Your task to perform on an android device: open app "File Manager" Image 0: 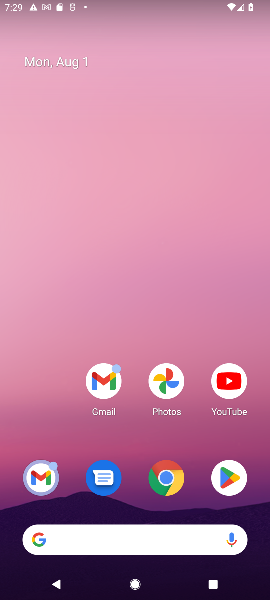
Step 0: press home button
Your task to perform on an android device: open app "File Manager" Image 1: 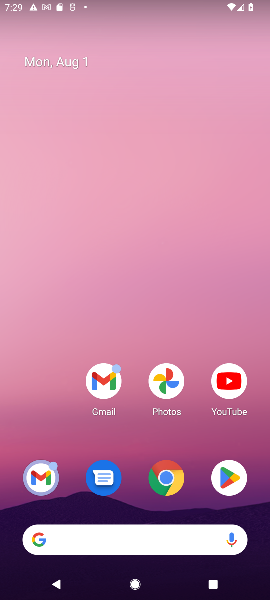
Step 1: click (228, 483)
Your task to perform on an android device: open app "File Manager" Image 2: 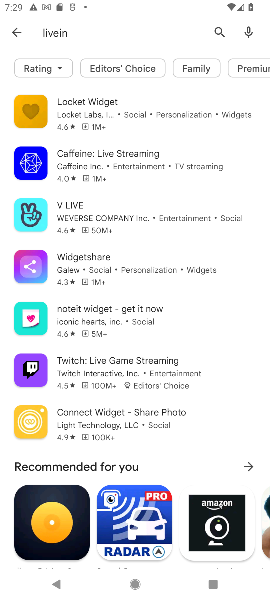
Step 2: click (212, 33)
Your task to perform on an android device: open app "File Manager" Image 3: 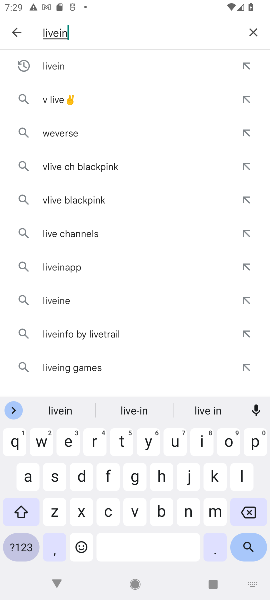
Step 3: click (250, 30)
Your task to perform on an android device: open app "File Manager" Image 4: 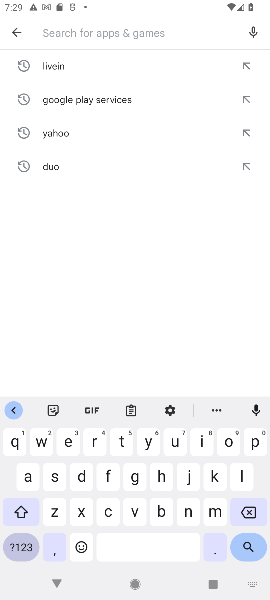
Step 4: click (108, 479)
Your task to perform on an android device: open app "File Manager" Image 5: 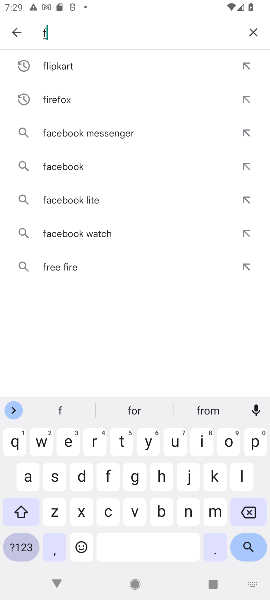
Step 5: click (198, 440)
Your task to perform on an android device: open app "File Manager" Image 6: 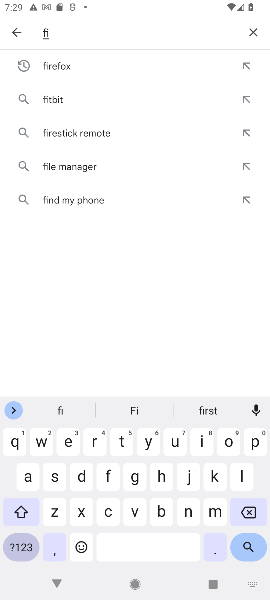
Step 6: click (79, 162)
Your task to perform on an android device: open app "File Manager" Image 7: 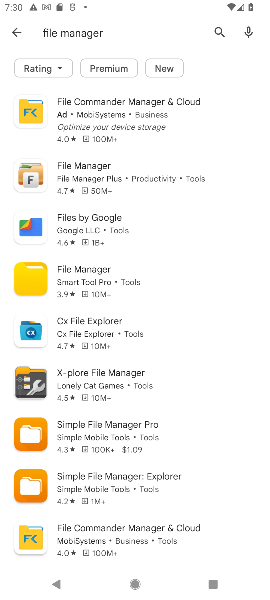
Step 7: click (90, 122)
Your task to perform on an android device: open app "File Manager" Image 8: 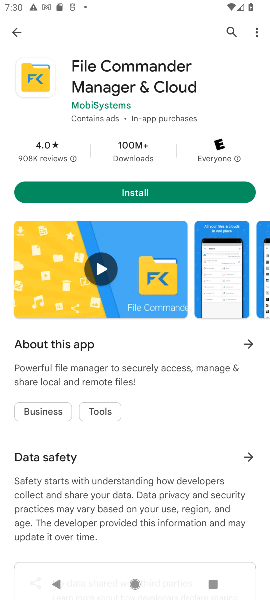
Step 8: click (104, 193)
Your task to perform on an android device: open app "File Manager" Image 9: 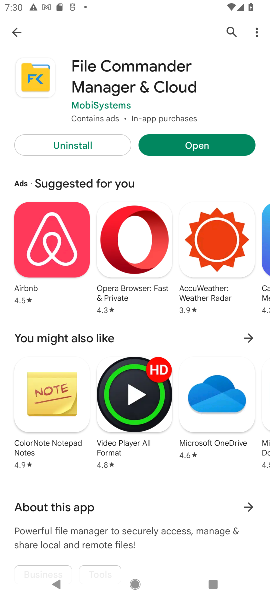
Step 9: click (175, 145)
Your task to perform on an android device: open app "File Manager" Image 10: 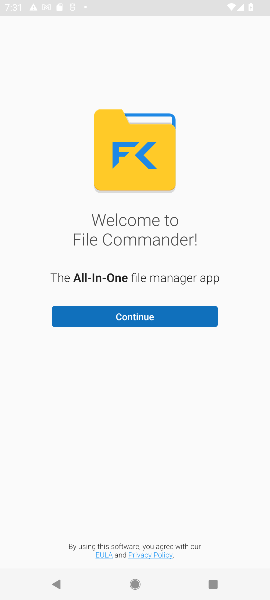
Step 10: click (123, 314)
Your task to perform on an android device: open app "File Manager" Image 11: 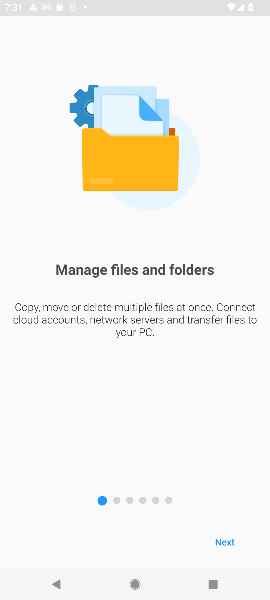
Step 11: click (234, 538)
Your task to perform on an android device: open app "File Manager" Image 12: 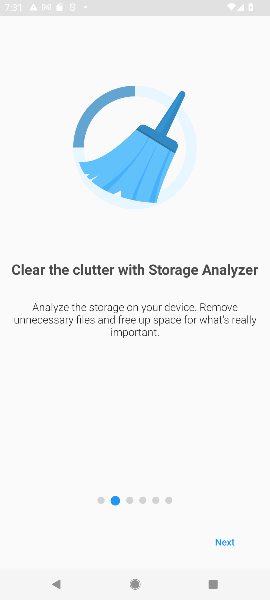
Step 12: click (232, 541)
Your task to perform on an android device: open app "File Manager" Image 13: 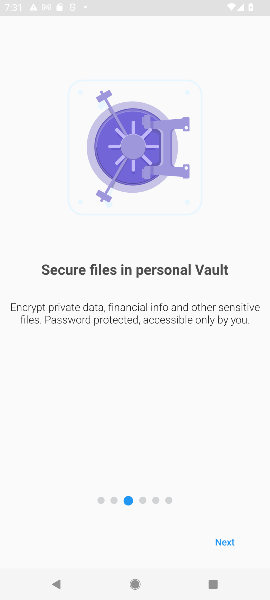
Step 13: click (231, 541)
Your task to perform on an android device: open app "File Manager" Image 14: 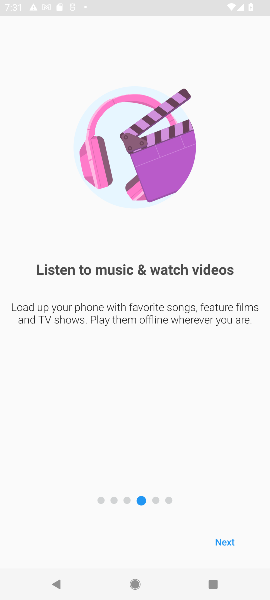
Step 14: click (230, 540)
Your task to perform on an android device: open app "File Manager" Image 15: 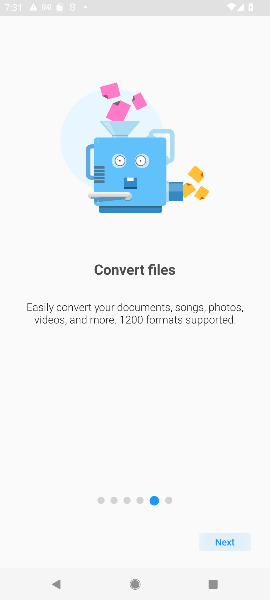
Step 15: click (230, 540)
Your task to perform on an android device: open app "File Manager" Image 16: 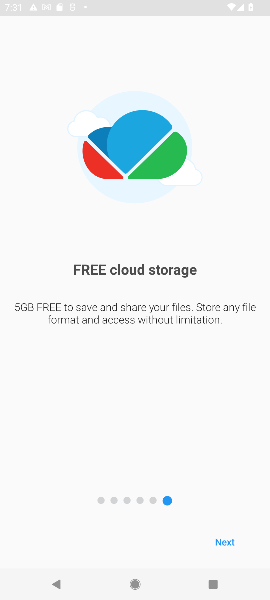
Step 16: click (230, 540)
Your task to perform on an android device: open app "File Manager" Image 17: 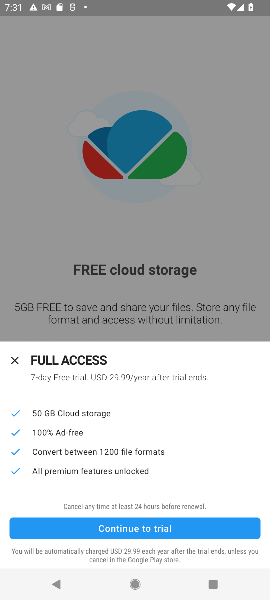
Step 17: click (13, 361)
Your task to perform on an android device: open app "File Manager" Image 18: 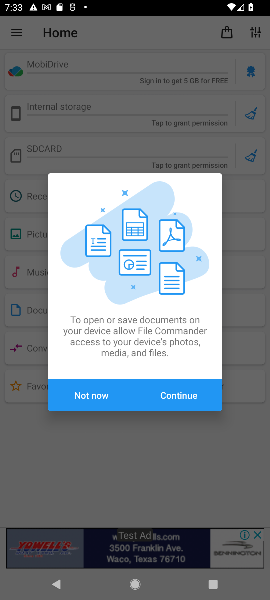
Step 18: task complete